Your task to perform on an android device: Go to ESPN.com Image 0: 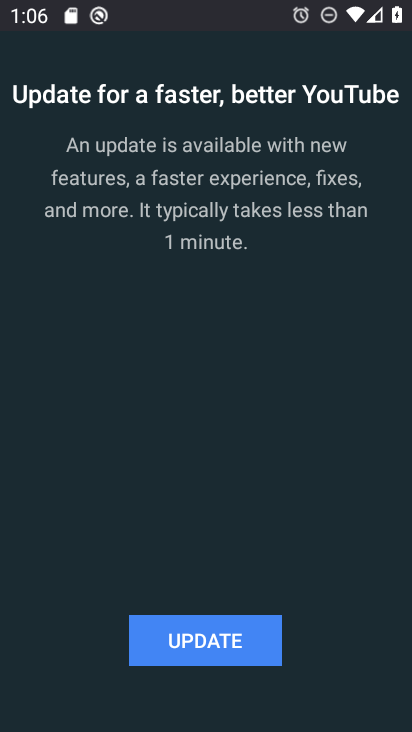
Step 0: press home button
Your task to perform on an android device: Go to ESPN.com Image 1: 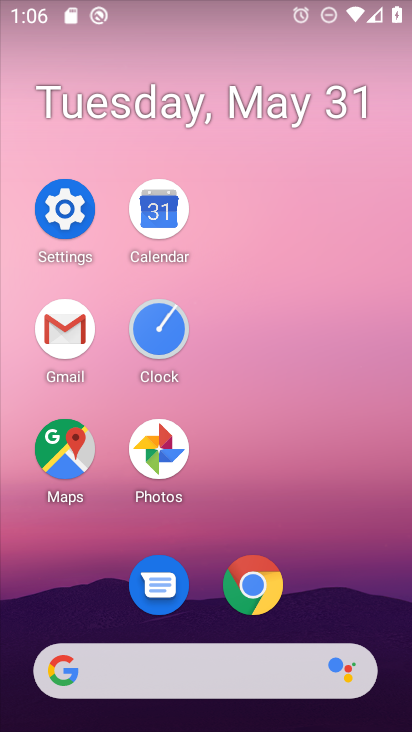
Step 1: click (263, 573)
Your task to perform on an android device: Go to ESPN.com Image 2: 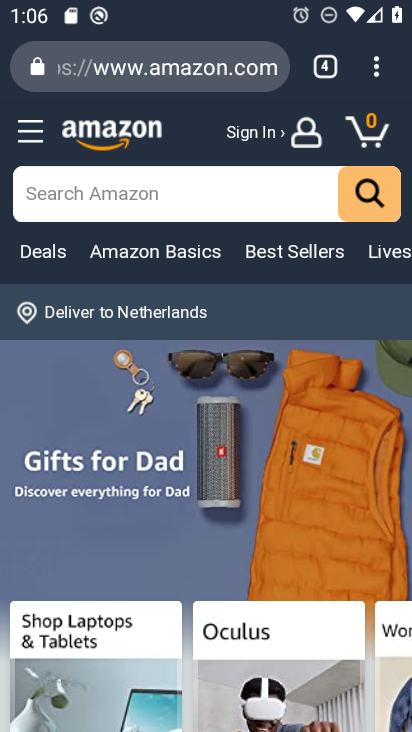
Step 2: click (332, 65)
Your task to perform on an android device: Go to ESPN.com Image 3: 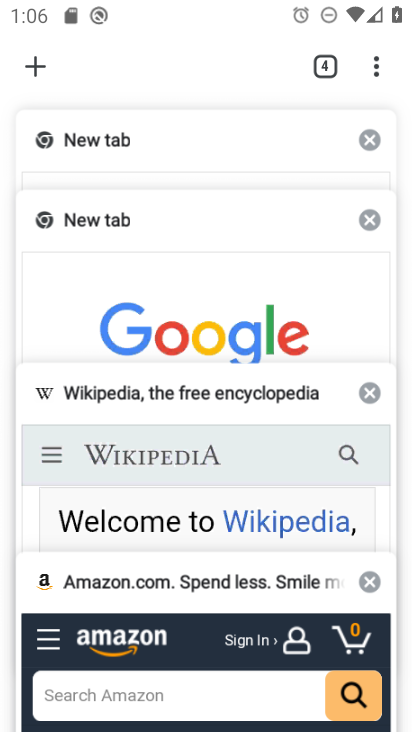
Step 3: click (41, 50)
Your task to perform on an android device: Go to ESPN.com Image 4: 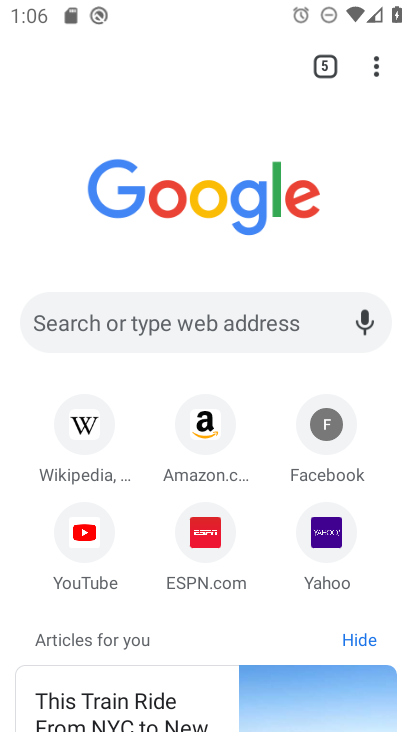
Step 4: click (213, 487)
Your task to perform on an android device: Go to ESPN.com Image 5: 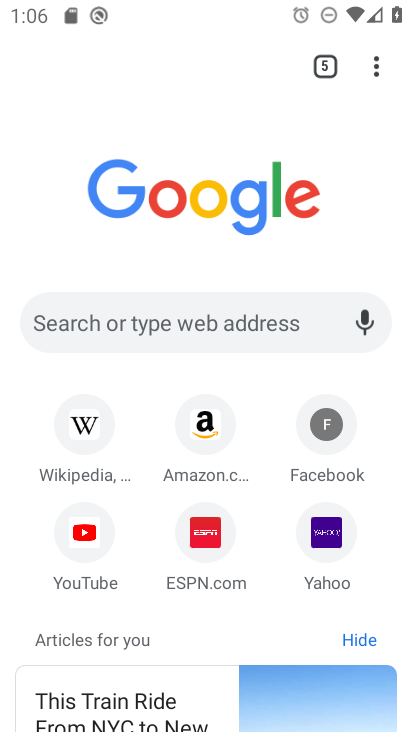
Step 5: click (206, 528)
Your task to perform on an android device: Go to ESPN.com Image 6: 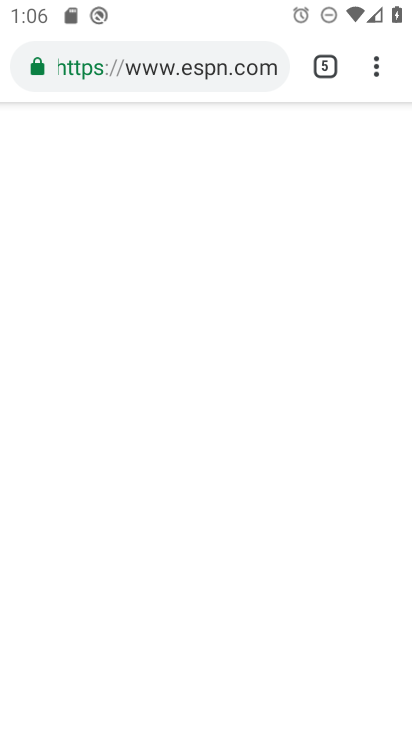
Step 6: task complete